Your task to perform on an android device: set an alarm Image 0: 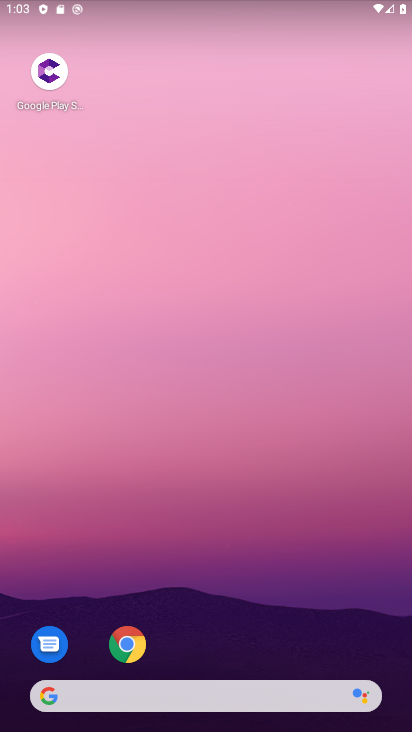
Step 0: drag from (296, 581) to (226, 153)
Your task to perform on an android device: set an alarm Image 1: 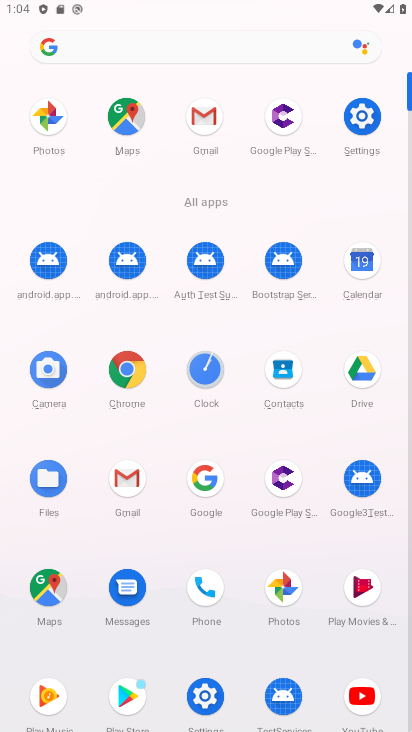
Step 1: click (204, 384)
Your task to perform on an android device: set an alarm Image 2: 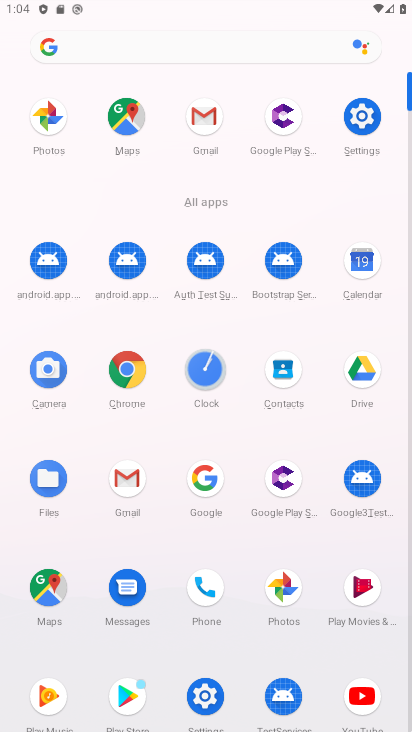
Step 2: click (205, 383)
Your task to perform on an android device: set an alarm Image 3: 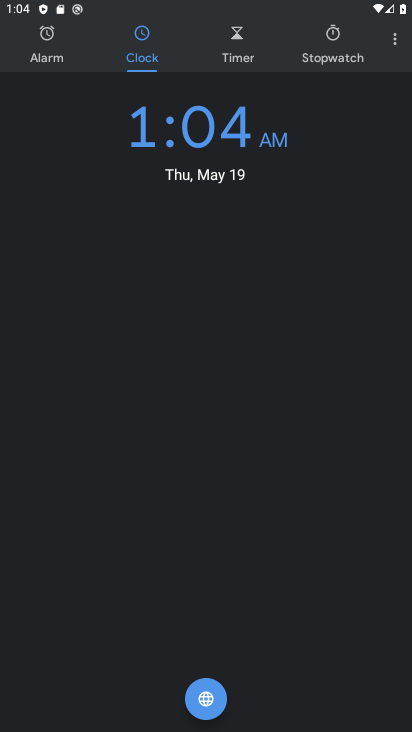
Step 3: click (54, 58)
Your task to perform on an android device: set an alarm Image 4: 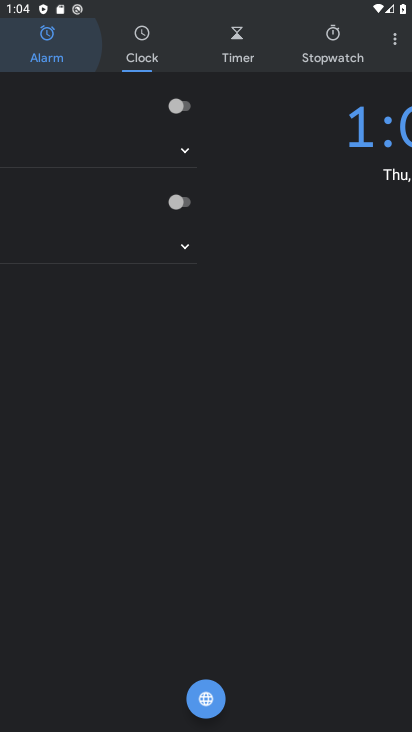
Step 4: click (37, 51)
Your task to perform on an android device: set an alarm Image 5: 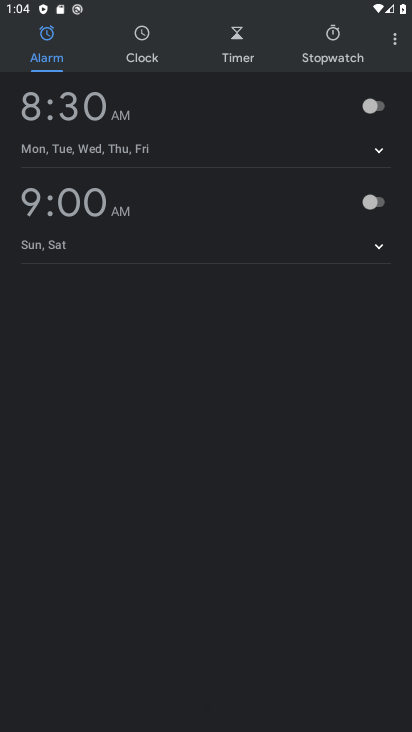
Step 5: click (42, 53)
Your task to perform on an android device: set an alarm Image 6: 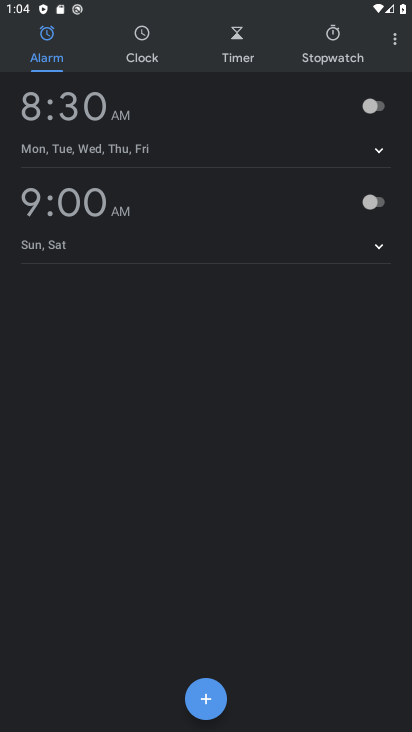
Step 6: click (359, 112)
Your task to perform on an android device: set an alarm Image 7: 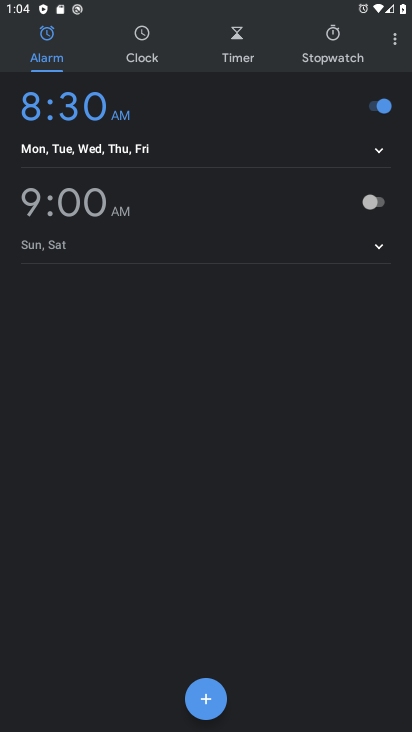
Step 7: task complete